Your task to perform on an android device: refresh tabs in the chrome app Image 0: 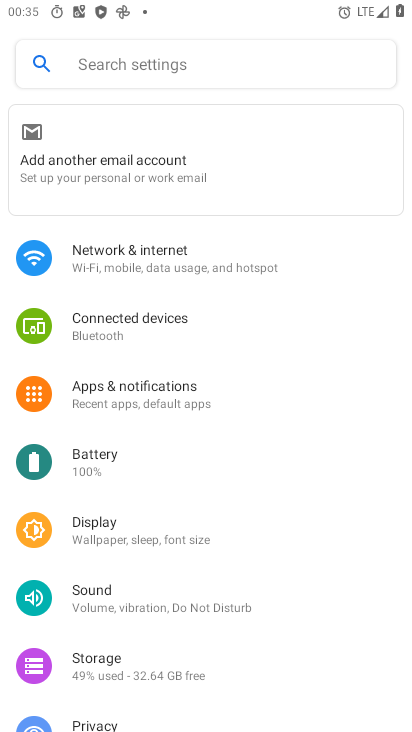
Step 0: press home button
Your task to perform on an android device: refresh tabs in the chrome app Image 1: 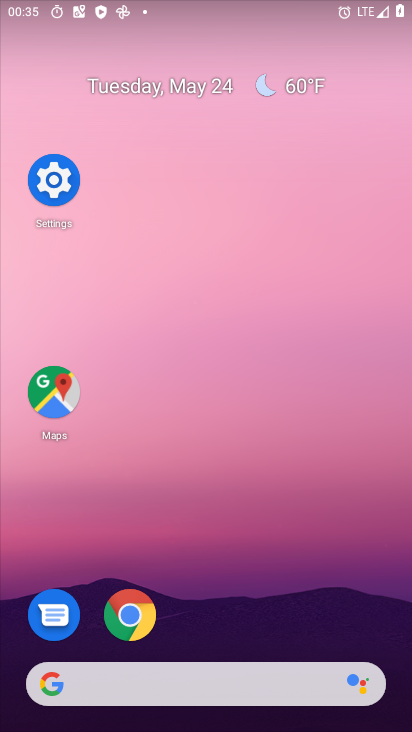
Step 1: click (129, 617)
Your task to perform on an android device: refresh tabs in the chrome app Image 2: 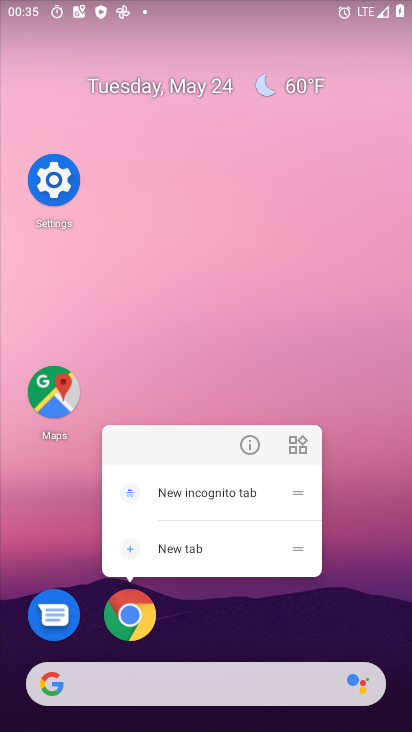
Step 2: click (129, 617)
Your task to perform on an android device: refresh tabs in the chrome app Image 3: 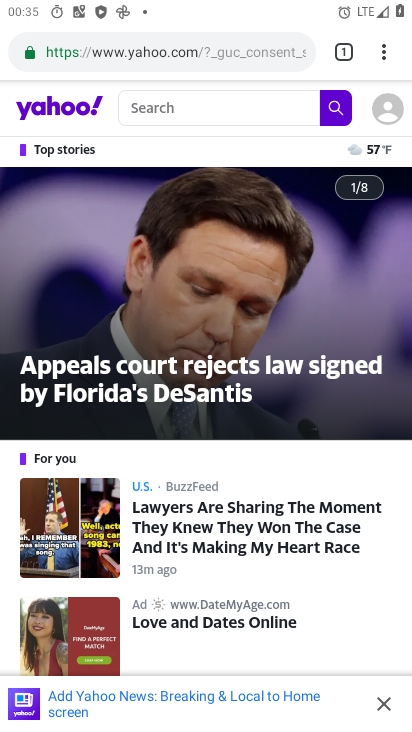
Step 3: click (381, 62)
Your task to perform on an android device: refresh tabs in the chrome app Image 4: 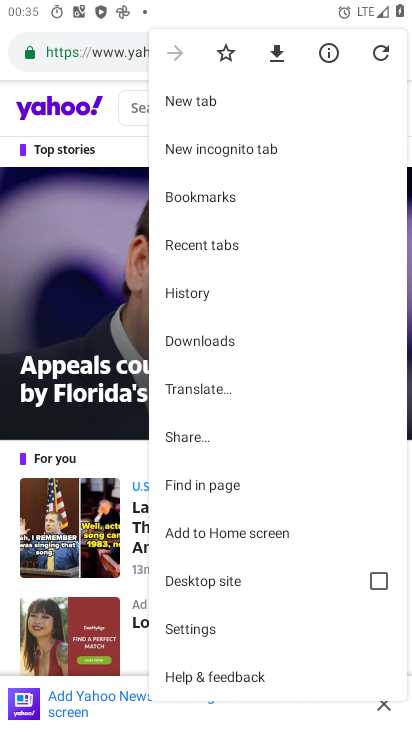
Step 4: click (384, 59)
Your task to perform on an android device: refresh tabs in the chrome app Image 5: 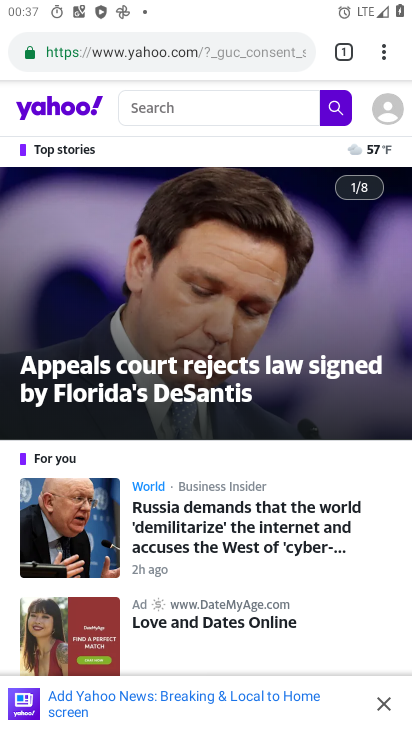
Step 5: task complete